Your task to perform on an android device: turn off javascript in the chrome app Image 0: 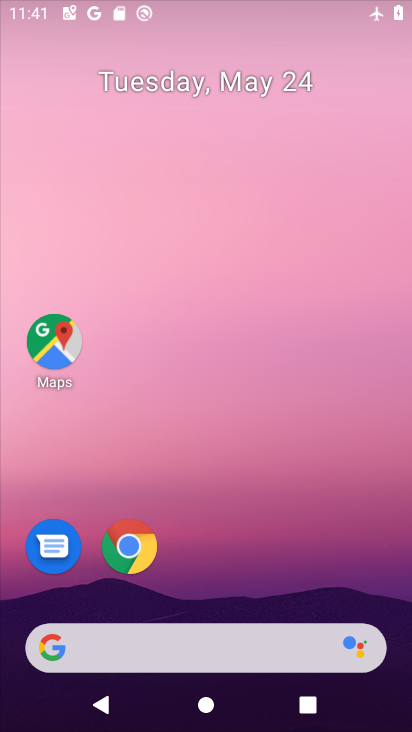
Step 0: drag from (214, 607) to (244, 62)
Your task to perform on an android device: turn off javascript in the chrome app Image 1: 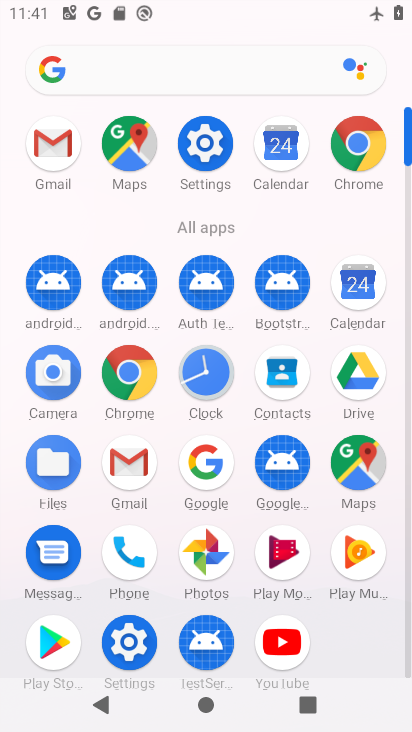
Step 1: click (128, 387)
Your task to perform on an android device: turn off javascript in the chrome app Image 2: 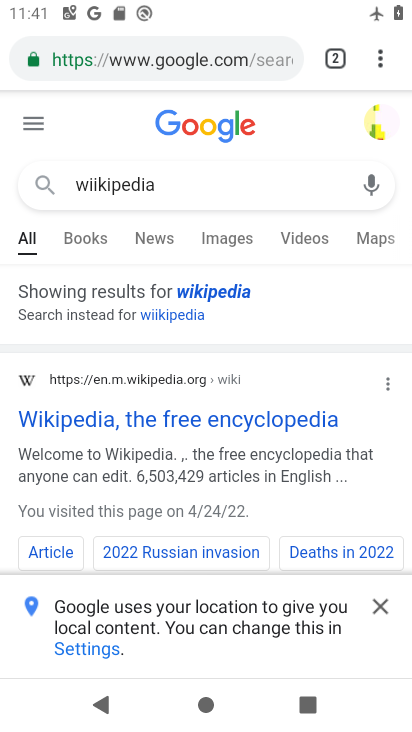
Step 2: click (387, 55)
Your task to perform on an android device: turn off javascript in the chrome app Image 3: 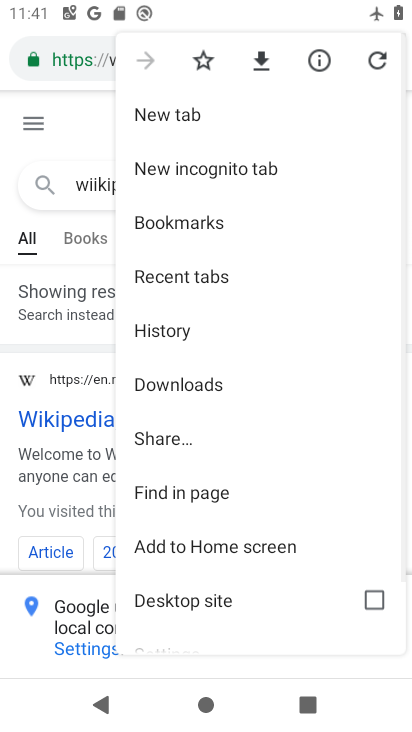
Step 3: drag from (178, 581) to (188, 202)
Your task to perform on an android device: turn off javascript in the chrome app Image 4: 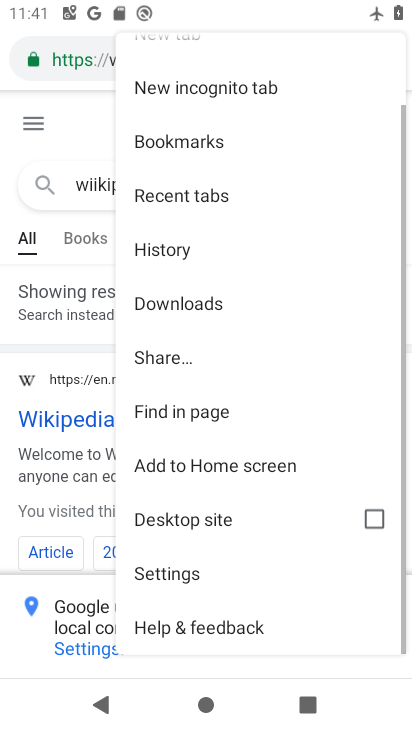
Step 4: click (162, 577)
Your task to perform on an android device: turn off javascript in the chrome app Image 5: 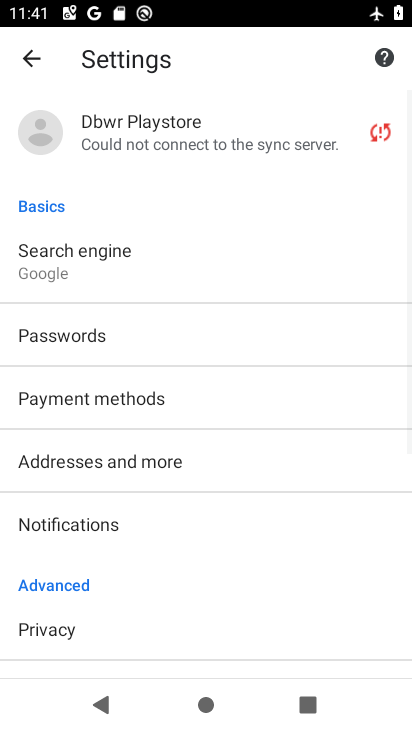
Step 5: drag from (146, 555) to (220, 123)
Your task to perform on an android device: turn off javascript in the chrome app Image 6: 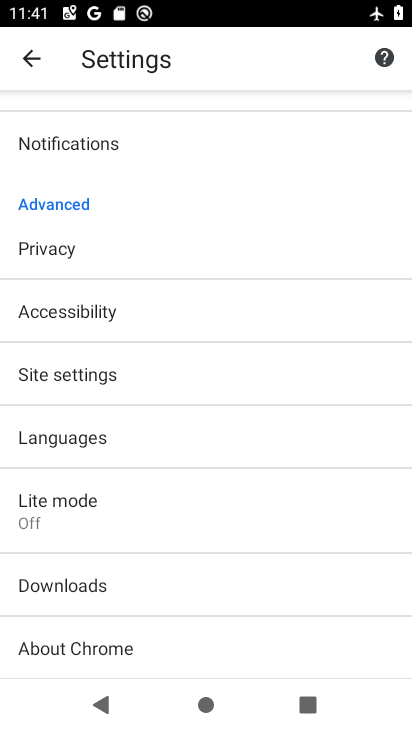
Step 6: click (101, 376)
Your task to perform on an android device: turn off javascript in the chrome app Image 7: 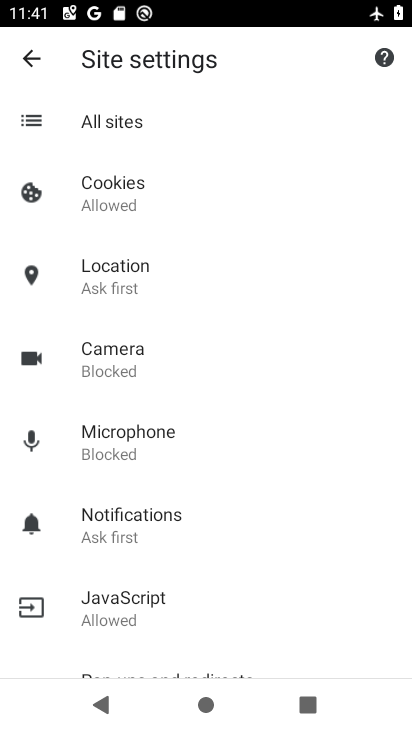
Step 7: click (135, 616)
Your task to perform on an android device: turn off javascript in the chrome app Image 8: 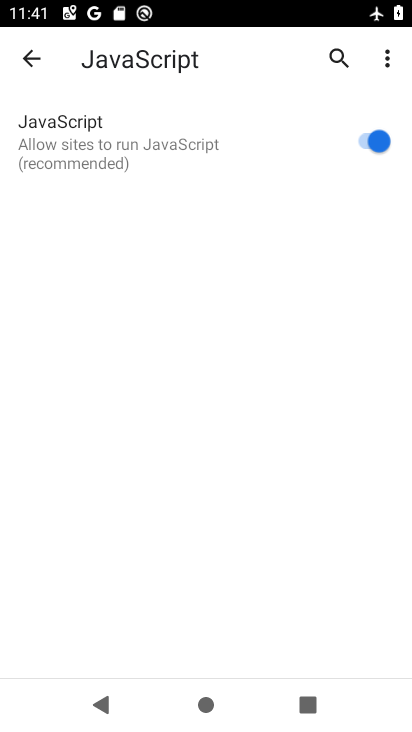
Step 8: click (348, 132)
Your task to perform on an android device: turn off javascript in the chrome app Image 9: 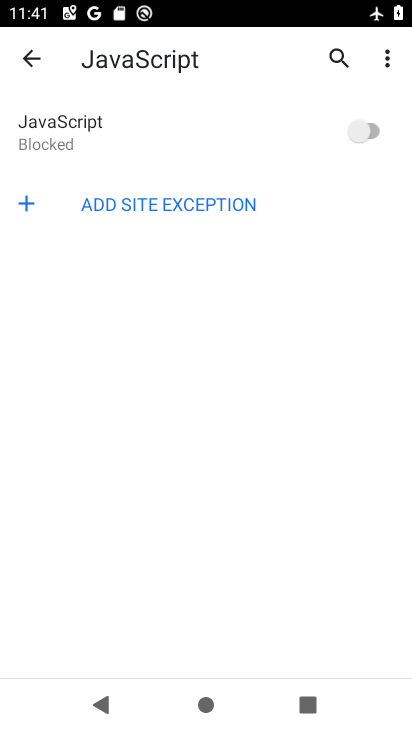
Step 9: task complete